Your task to perform on an android device: toggle location history Image 0: 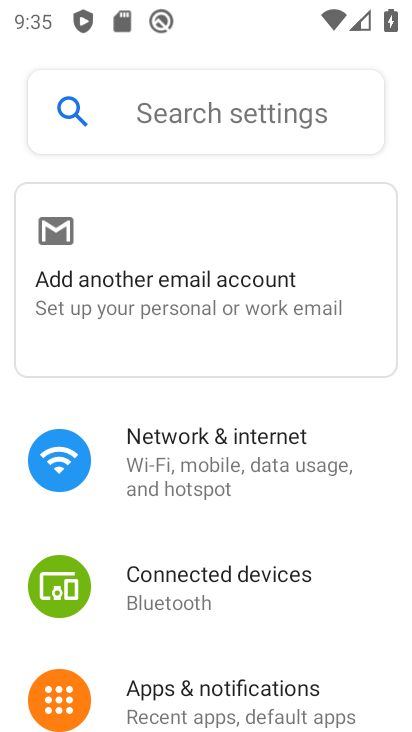
Step 0: press home button
Your task to perform on an android device: toggle location history Image 1: 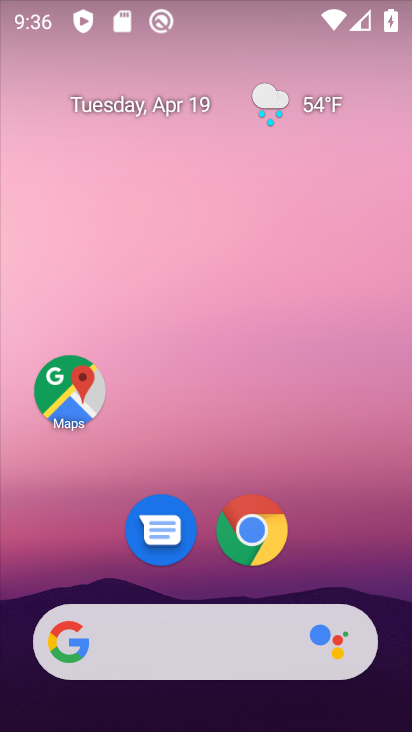
Step 1: drag from (362, 420) to (313, 60)
Your task to perform on an android device: toggle location history Image 2: 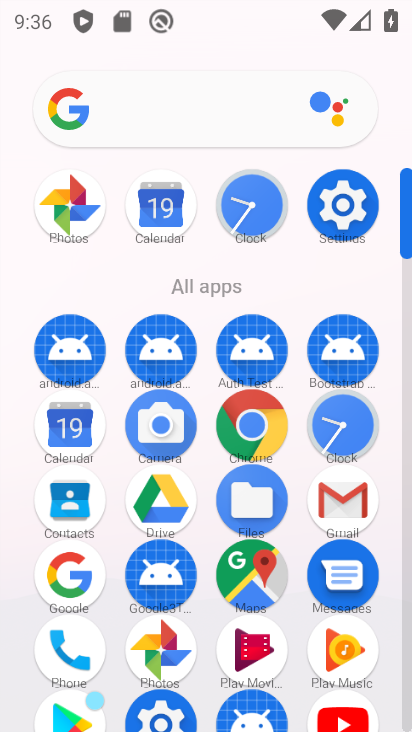
Step 2: click (343, 205)
Your task to perform on an android device: toggle location history Image 3: 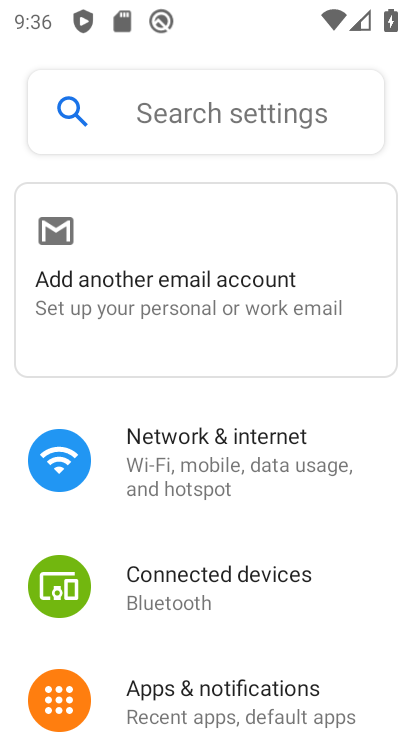
Step 3: drag from (259, 610) to (250, 140)
Your task to perform on an android device: toggle location history Image 4: 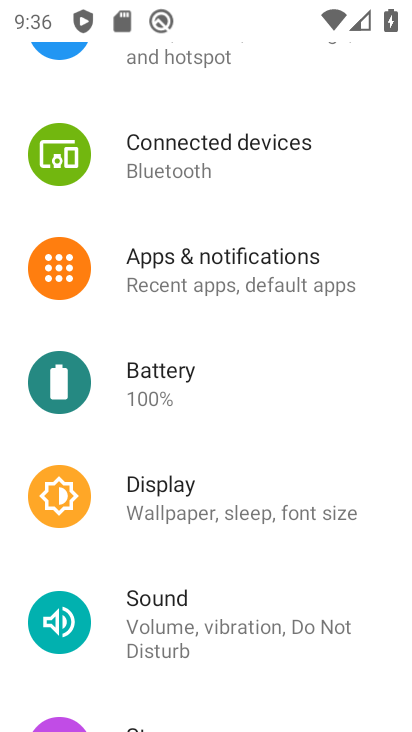
Step 4: drag from (222, 674) to (199, 352)
Your task to perform on an android device: toggle location history Image 5: 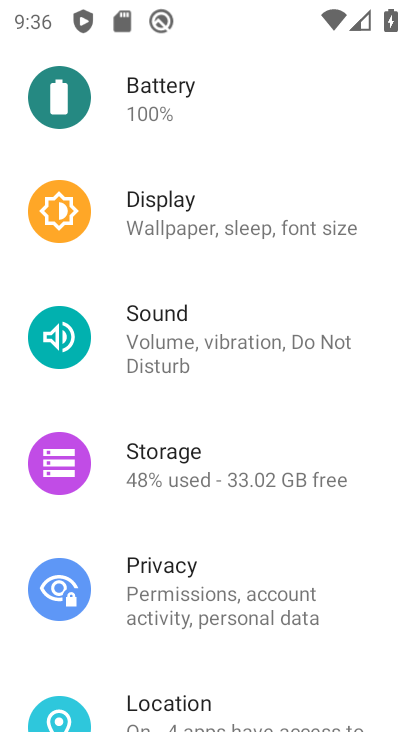
Step 5: click (173, 707)
Your task to perform on an android device: toggle location history Image 6: 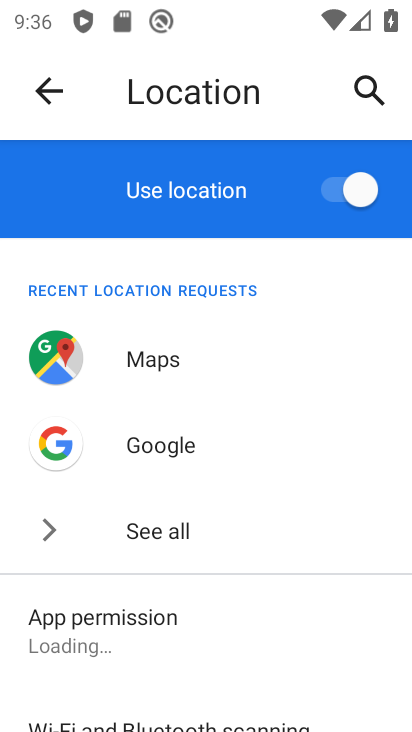
Step 6: drag from (253, 659) to (238, 352)
Your task to perform on an android device: toggle location history Image 7: 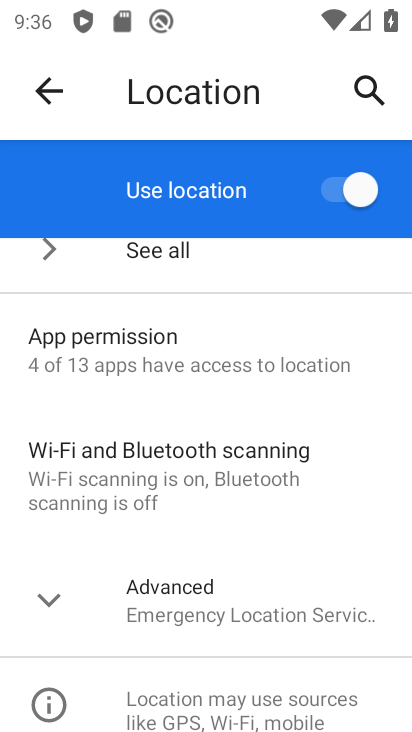
Step 7: click (183, 611)
Your task to perform on an android device: toggle location history Image 8: 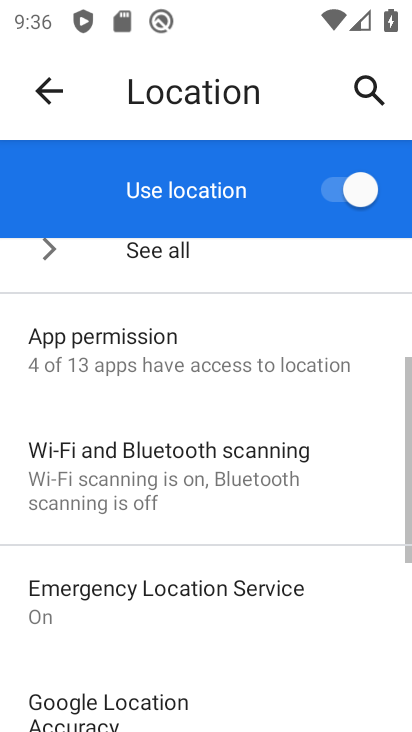
Step 8: drag from (265, 650) to (259, 404)
Your task to perform on an android device: toggle location history Image 9: 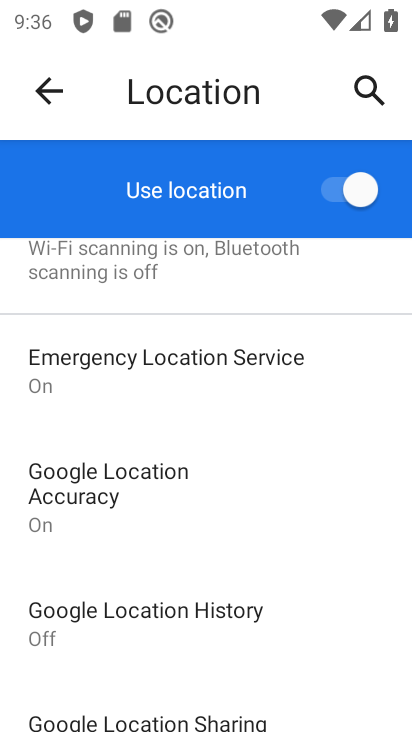
Step 9: click (159, 631)
Your task to perform on an android device: toggle location history Image 10: 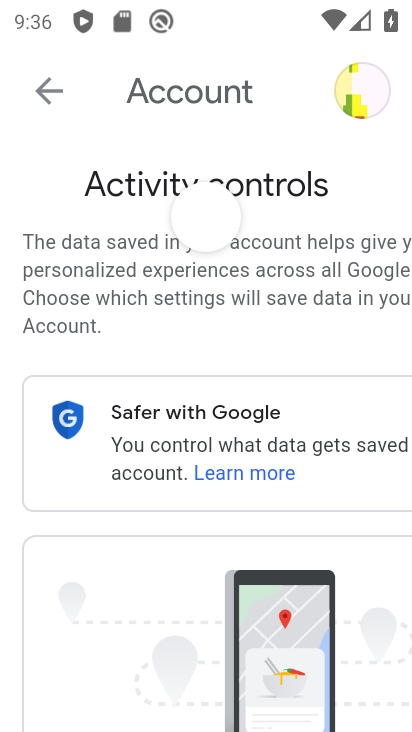
Step 10: drag from (307, 541) to (306, 117)
Your task to perform on an android device: toggle location history Image 11: 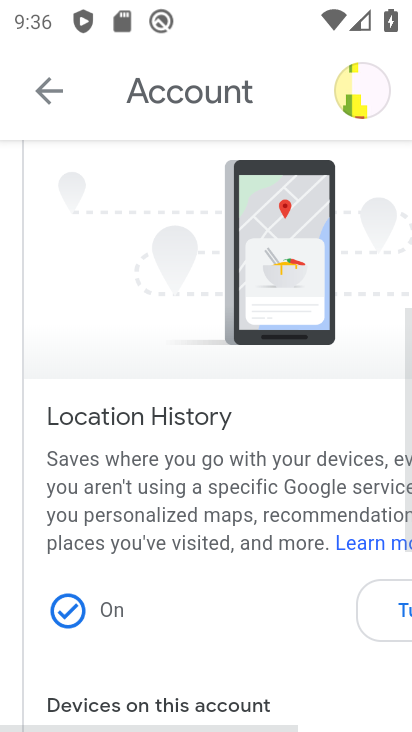
Step 11: drag from (264, 611) to (253, 496)
Your task to perform on an android device: toggle location history Image 12: 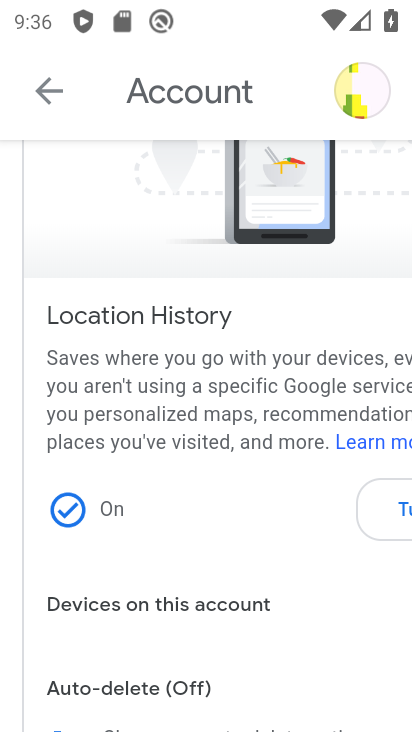
Step 12: click (395, 504)
Your task to perform on an android device: toggle location history Image 13: 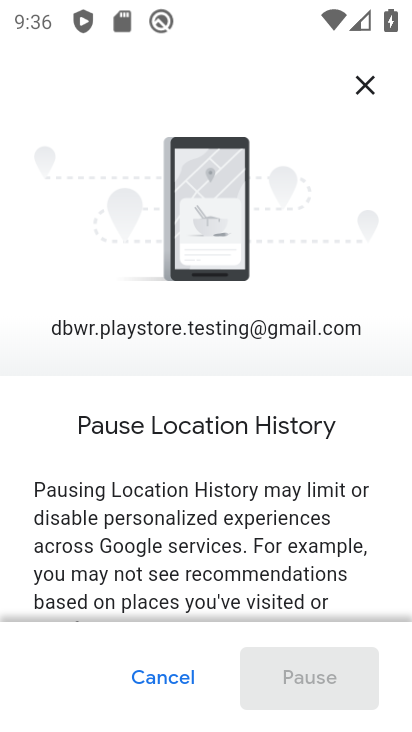
Step 13: drag from (317, 537) to (330, 68)
Your task to perform on an android device: toggle location history Image 14: 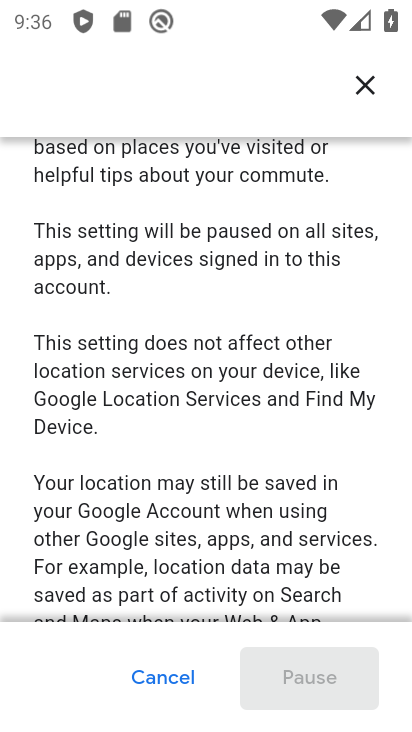
Step 14: drag from (311, 595) to (307, 123)
Your task to perform on an android device: toggle location history Image 15: 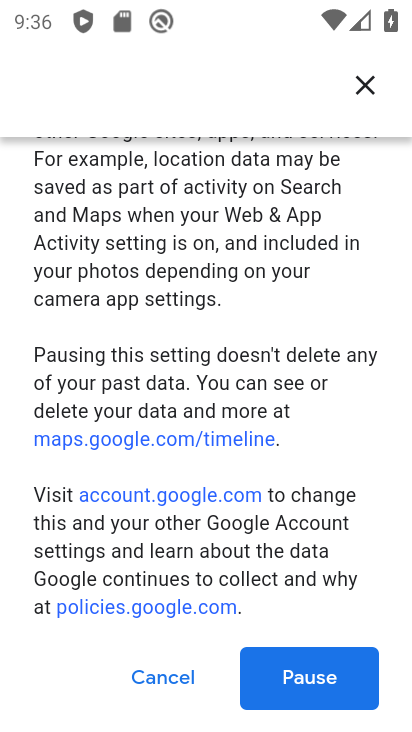
Step 15: click (307, 698)
Your task to perform on an android device: toggle location history Image 16: 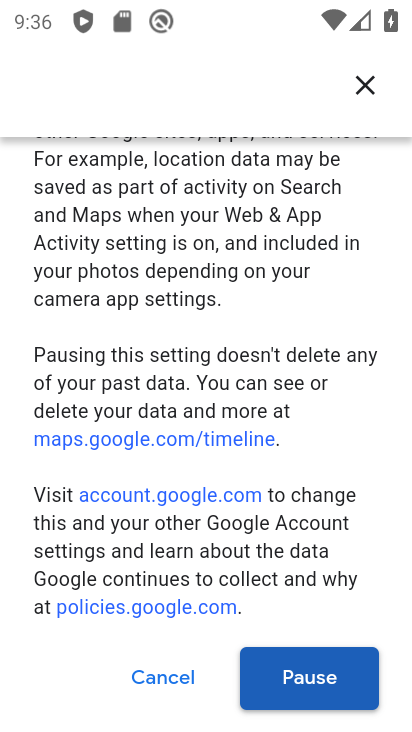
Step 16: click (308, 680)
Your task to perform on an android device: toggle location history Image 17: 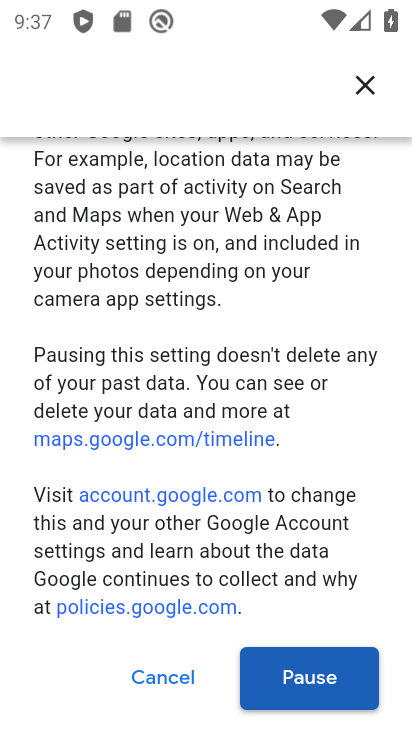
Step 17: click (298, 682)
Your task to perform on an android device: toggle location history Image 18: 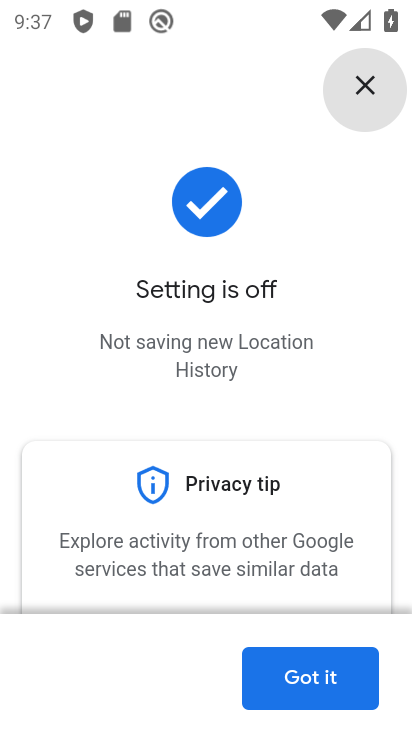
Step 18: click (298, 682)
Your task to perform on an android device: toggle location history Image 19: 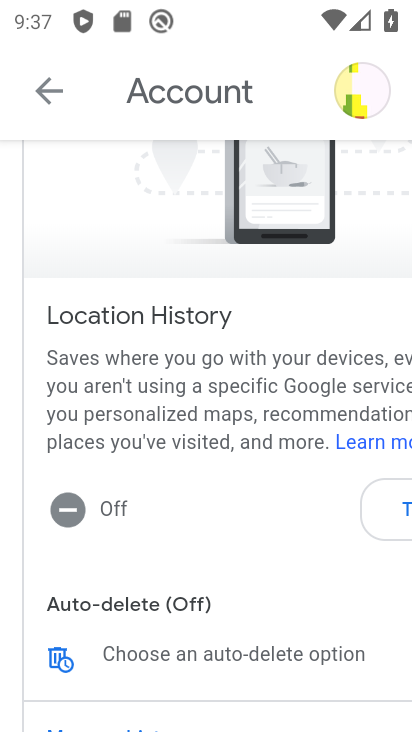
Step 19: task complete